Your task to perform on an android device: Open CNN.com Image 0: 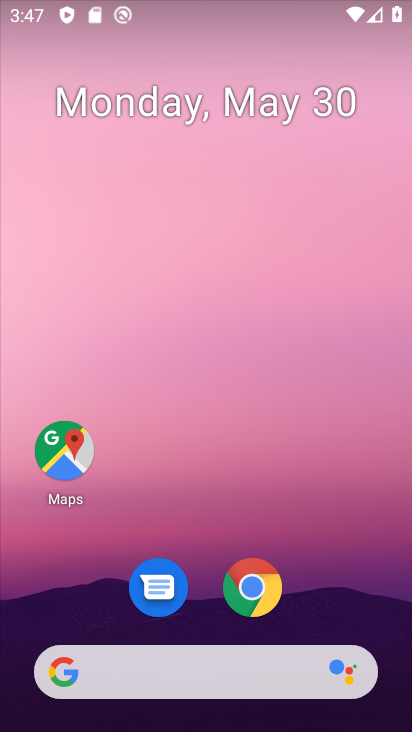
Step 0: click (283, 582)
Your task to perform on an android device: Open CNN.com Image 1: 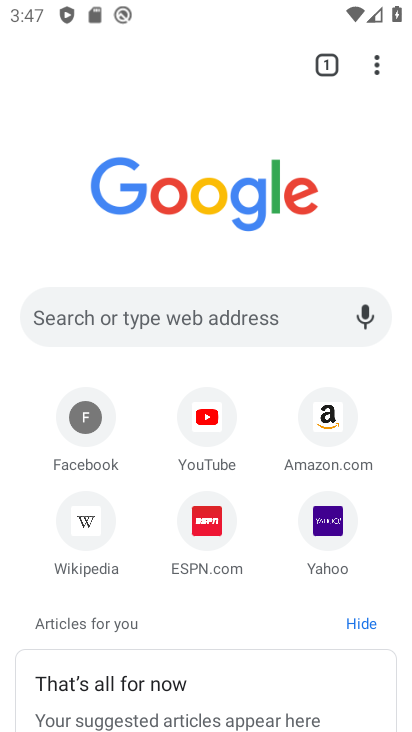
Step 1: click (254, 329)
Your task to perform on an android device: Open CNN.com Image 2: 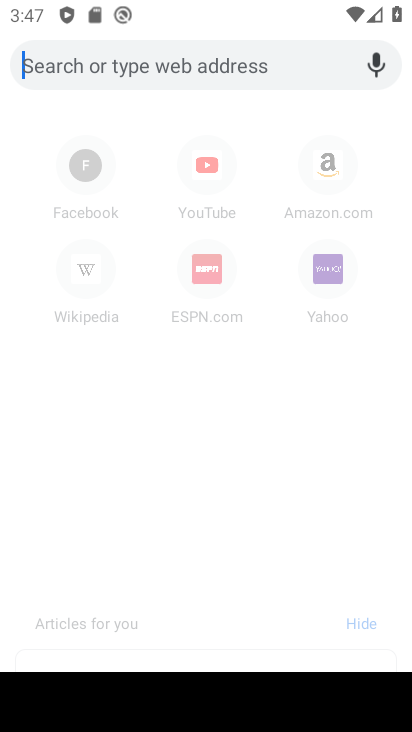
Step 2: type " CNN.com"
Your task to perform on an android device: Open CNN.com Image 3: 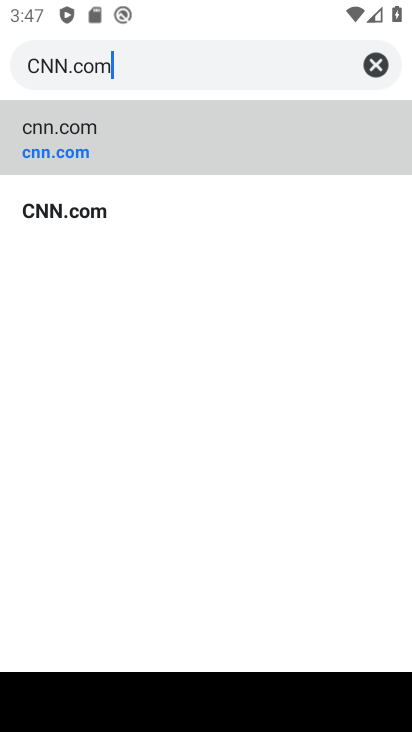
Step 3: type ""
Your task to perform on an android device: Open CNN.com Image 4: 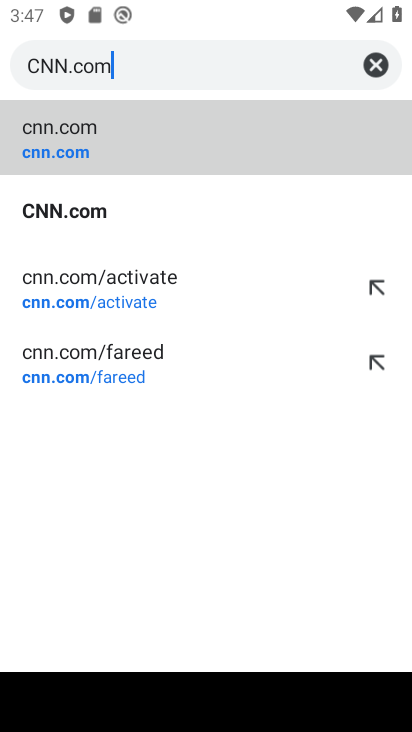
Step 4: click (243, 123)
Your task to perform on an android device: Open CNN.com Image 5: 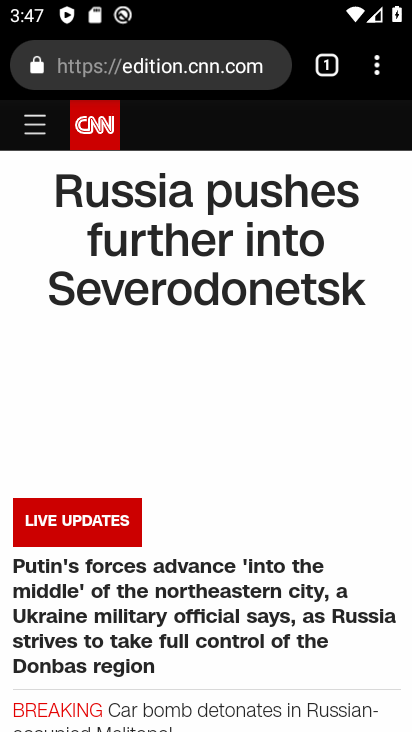
Step 5: task complete